Your task to perform on an android device: Open Chrome and go to the settings page Image 0: 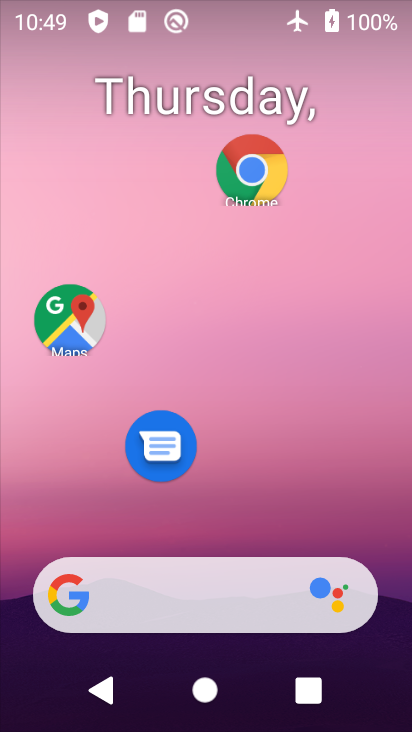
Step 0: click (234, 177)
Your task to perform on an android device: Open Chrome and go to the settings page Image 1: 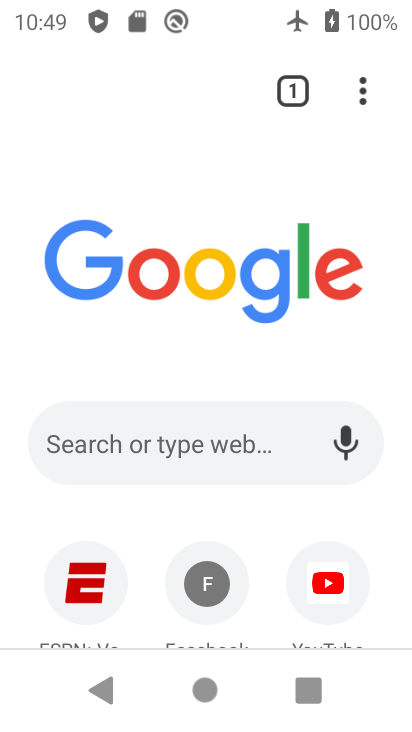
Step 1: click (358, 93)
Your task to perform on an android device: Open Chrome and go to the settings page Image 2: 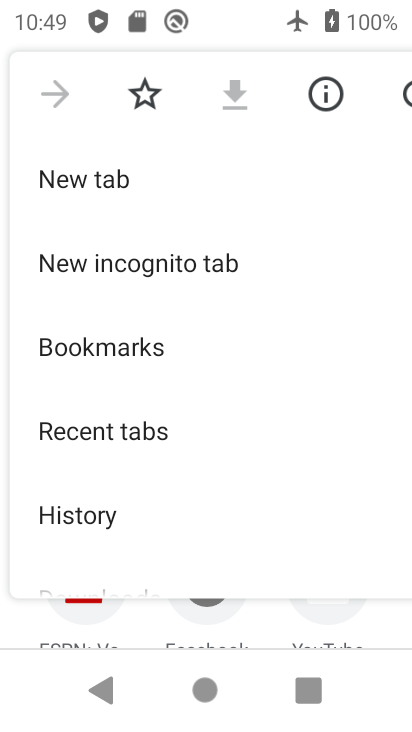
Step 2: drag from (179, 528) to (195, 127)
Your task to perform on an android device: Open Chrome and go to the settings page Image 3: 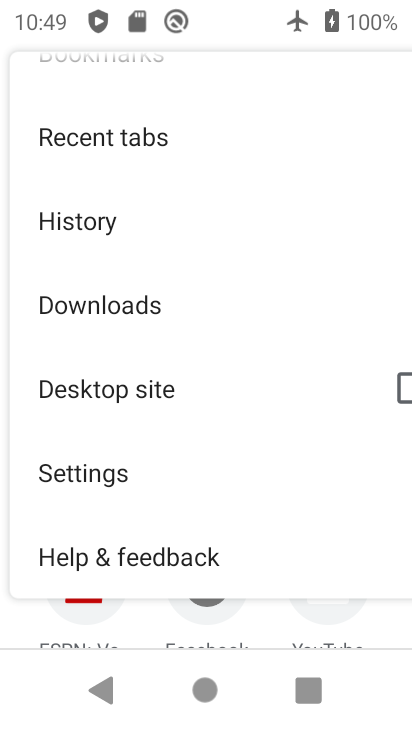
Step 3: click (72, 466)
Your task to perform on an android device: Open Chrome and go to the settings page Image 4: 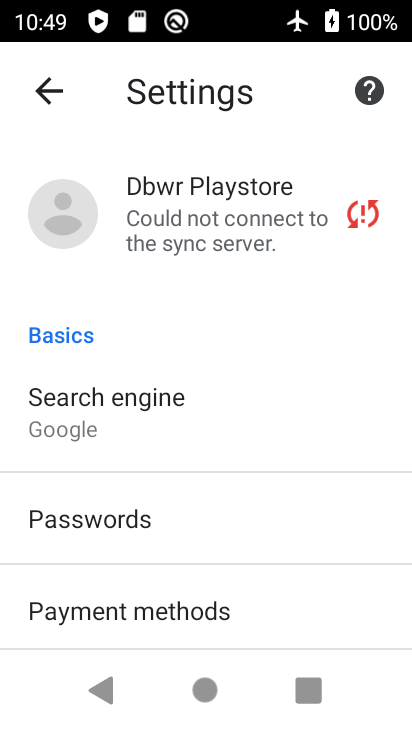
Step 4: task complete